Your task to perform on an android device: open app "Google Photos" Image 0: 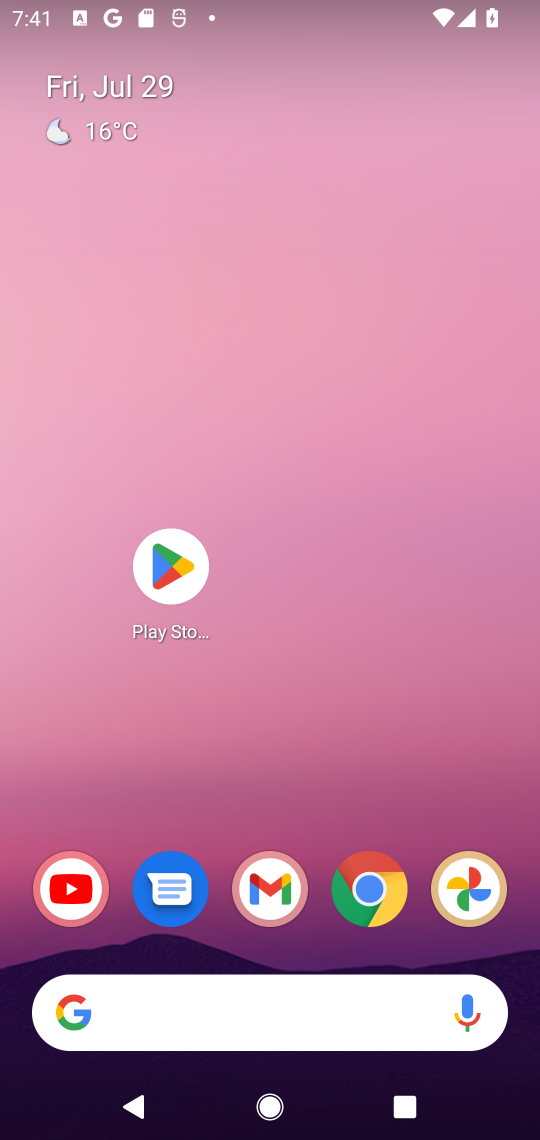
Step 0: press home button
Your task to perform on an android device: open app "Google Photos" Image 1: 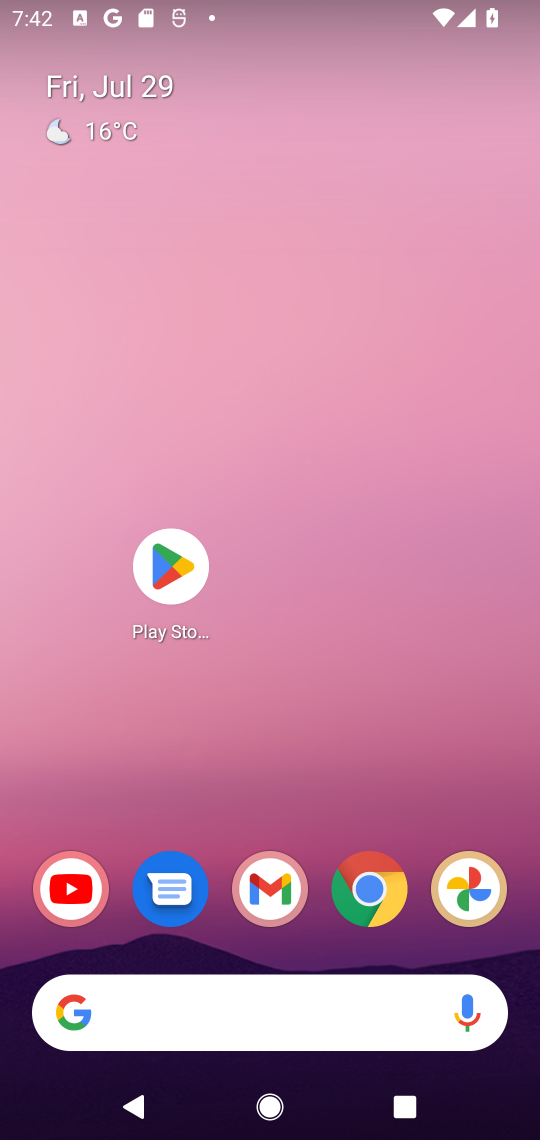
Step 1: click (478, 882)
Your task to perform on an android device: open app "Google Photos" Image 2: 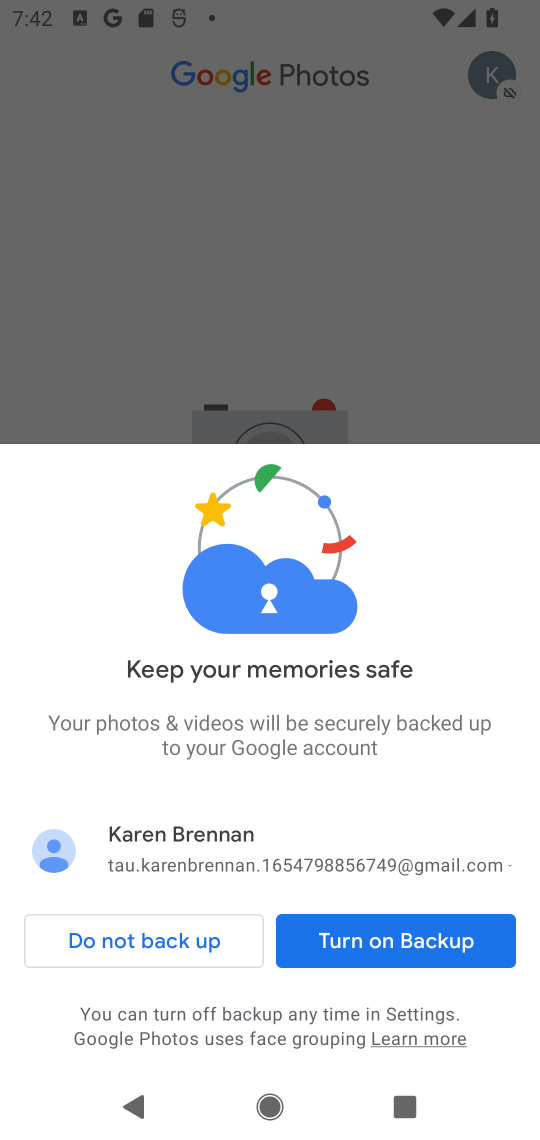
Step 2: drag from (379, 314) to (456, 148)
Your task to perform on an android device: open app "Google Photos" Image 3: 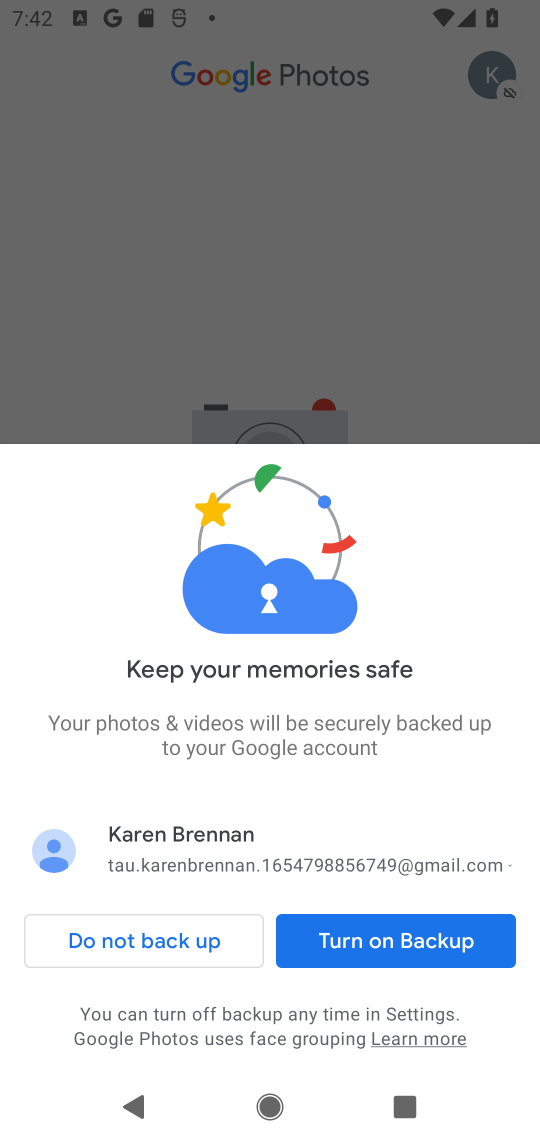
Step 3: click (408, 924)
Your task to perform on an android device: open app "Google Photos" Image 4: 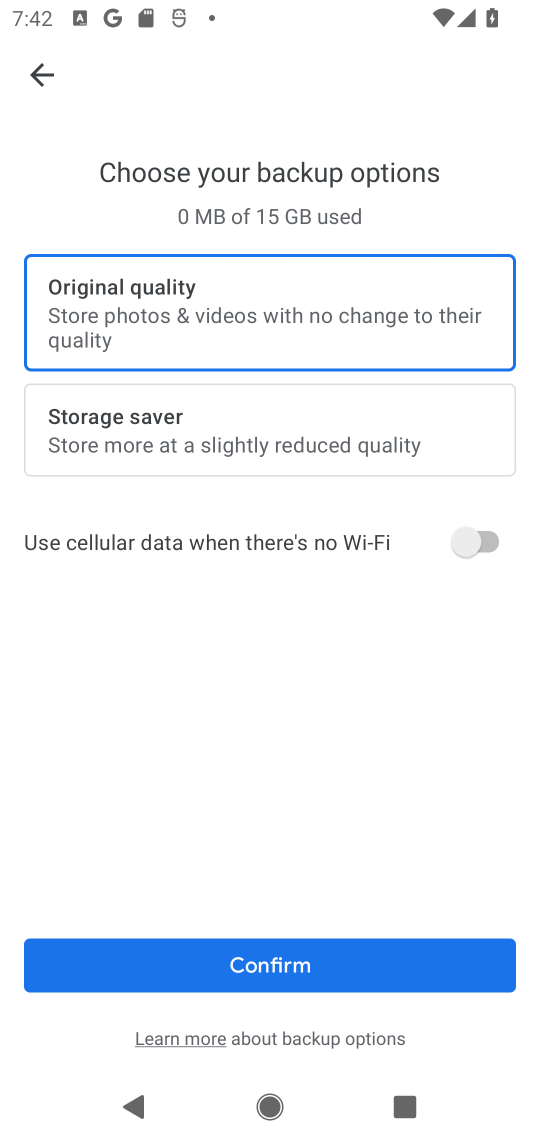
Step 4: click (282, 957)
Your task to perform on an android device: open app "Google Photos" Image 5: 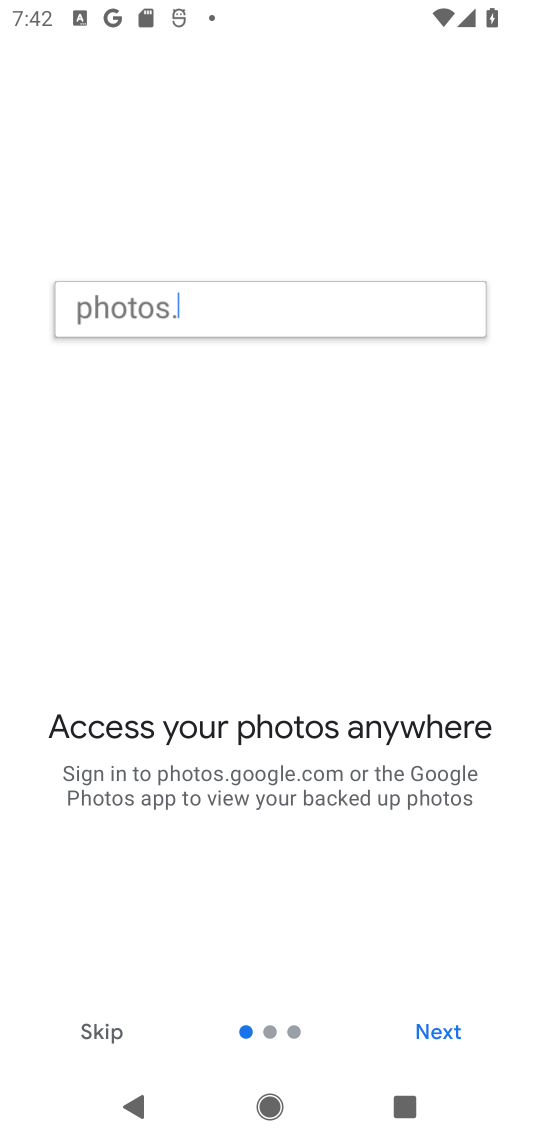
Step 5: click (465, 1020)
Your task to perform on an android device: open app "Google Photos" Image 6: 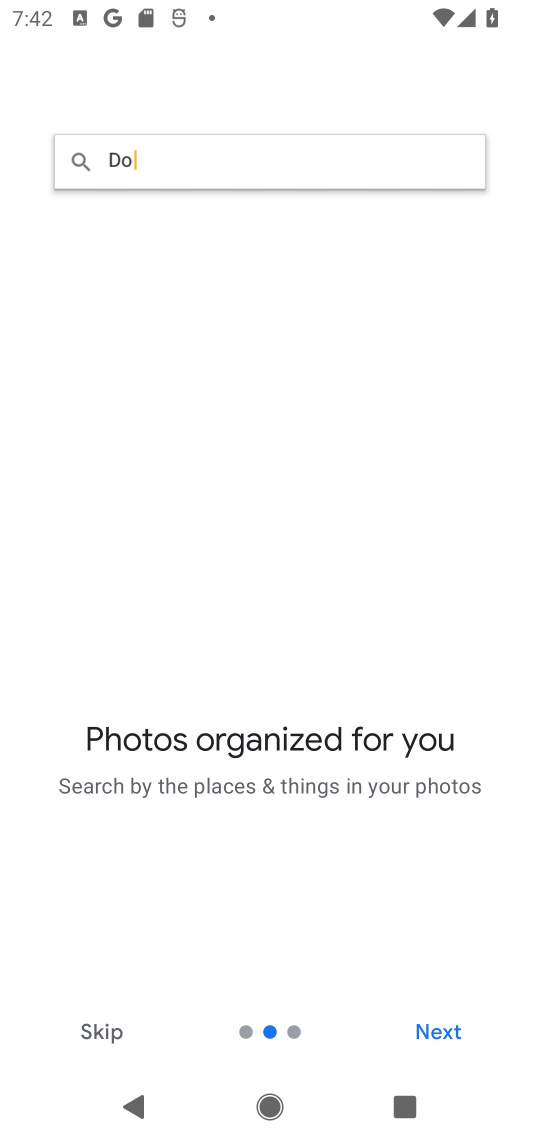
Step 6: click (465, 1020)
Your task to perform on an android device: open app "Google Photos" Image 7: 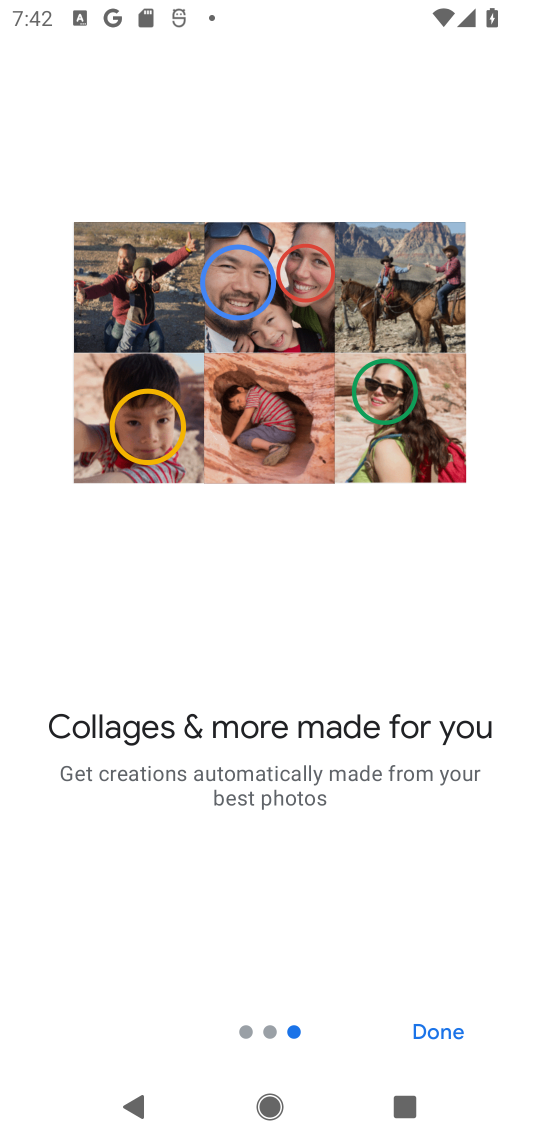
Step 7: click (453, 1029)
Your task to perform on an android device: open app "Google Photos" Image 8: 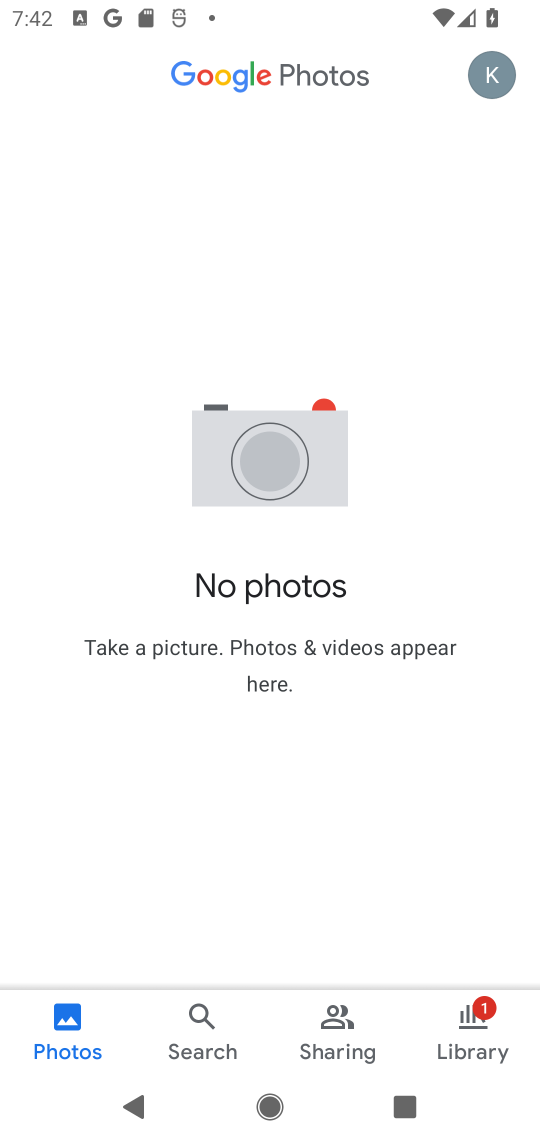
Step 8: task complete